Your task to perform on an android device: turn off sleep mode Image 0: 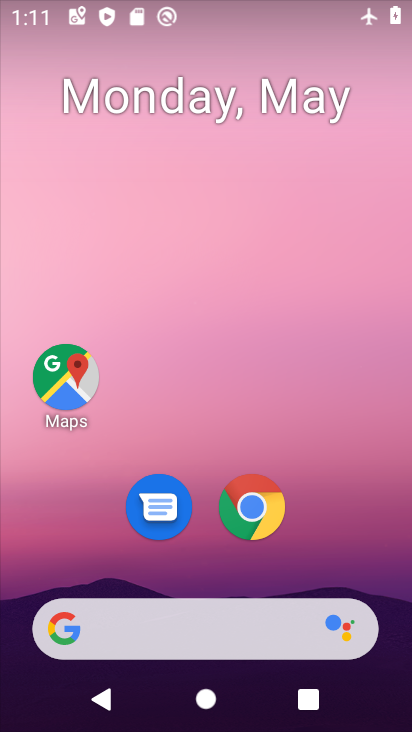
Step 0: drag from (228, 728) to (265, 9)
Your task to perform on an android device: turn off sleep mode Image 1: 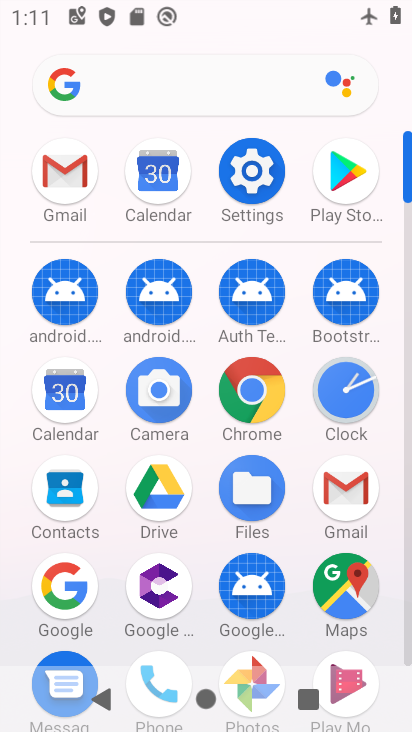
Step 1: click (251, 166)
Your task to perform on an android device: turn off sleep mode Image 2: 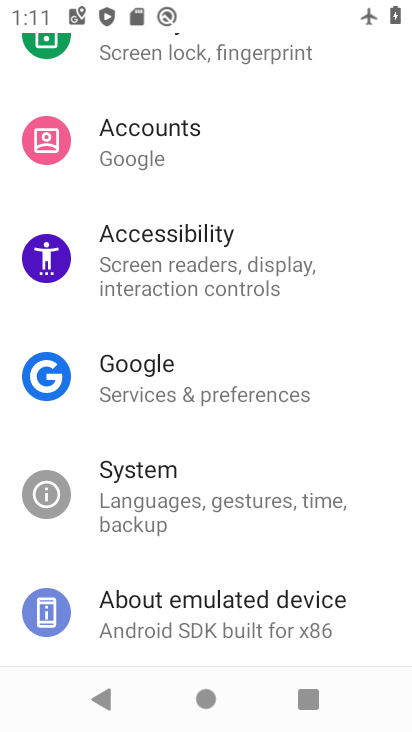
Step 2: task complete